Your task to perform on an android device: turn on javascript in the chrome app Image 0: 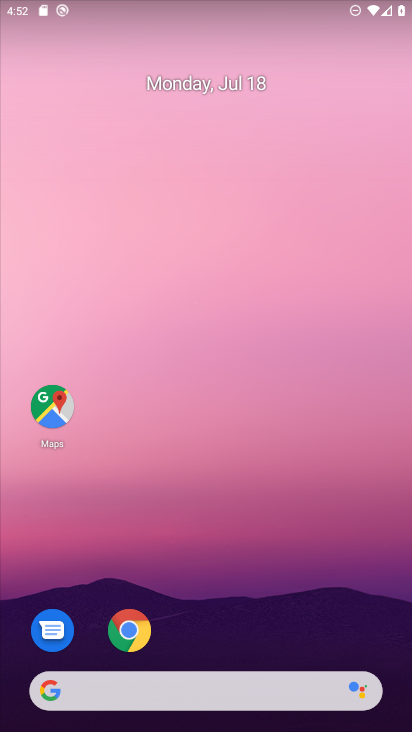
Step 0: click (131, 622)
Your task to perform on an android device: turn on javascript in the chrome app Image 1: 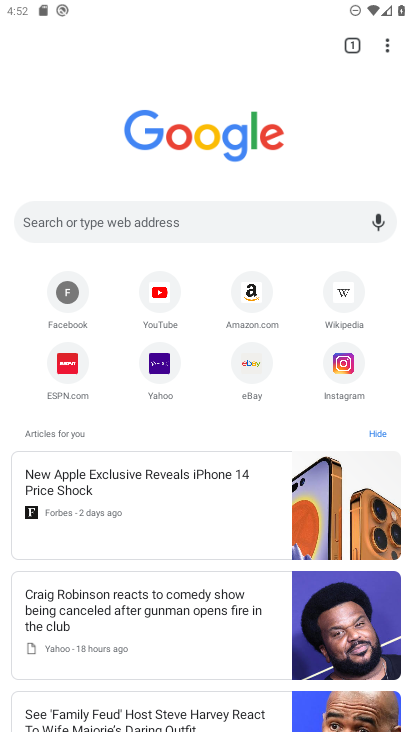
Step 1: click (382, 47)
Your task to perform on an android device: turn on javascript in the chrome app Image 2: 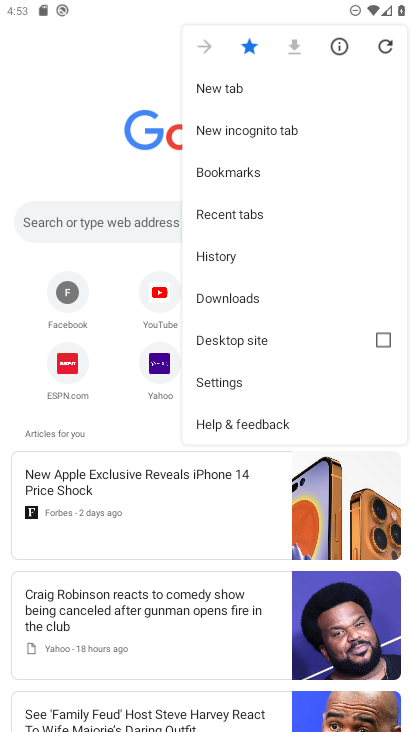
Step 2: click (248, 381)
Your task to perform on an android device: turn on javascript in the chrome app Image 3: 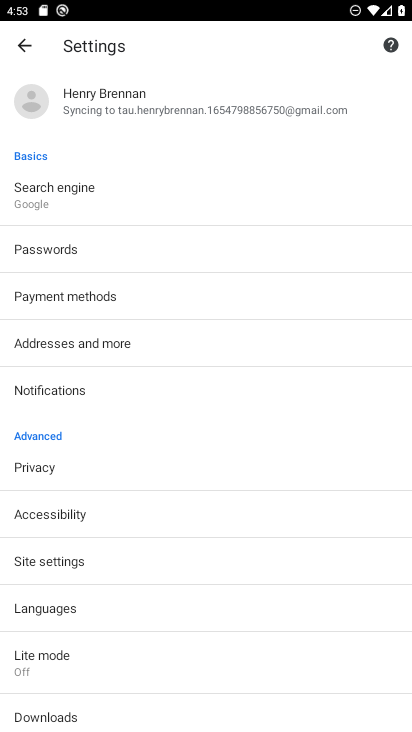
Step 3: click (78, 557)
Your task to perform on an android device: turn on javascript in the chrome app Image 4: 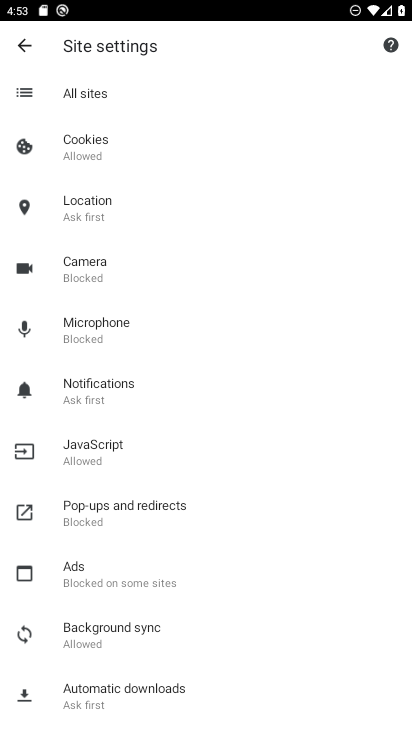
Step 4: click (95, 455)
Your task to perform on an android device: turn on javascript in the chrome app Image 5: 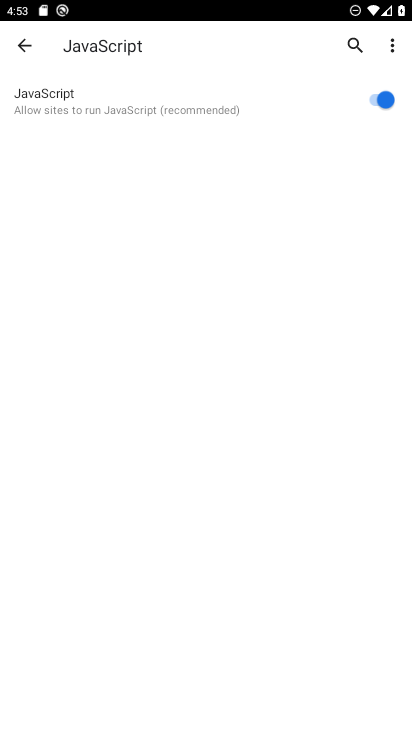
Step 5: task complete